Your task to perform on an android device: open chrome privacy settings Image 0: 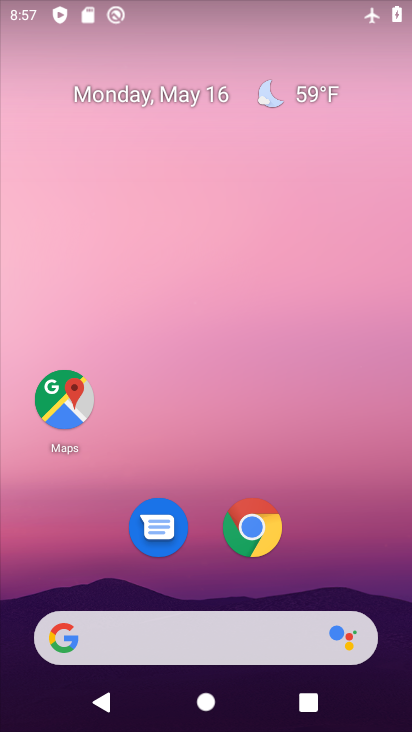
Step 0: click (260, 522)
Your task to perform on an android device: open chrome privacy settings Image 1: 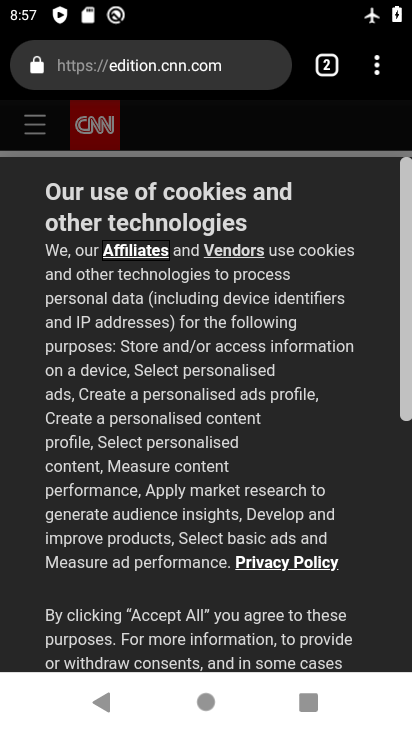
Step 1: click (378, 65)
Your task to perform on an android device: open chrome privacy settings Image 2: 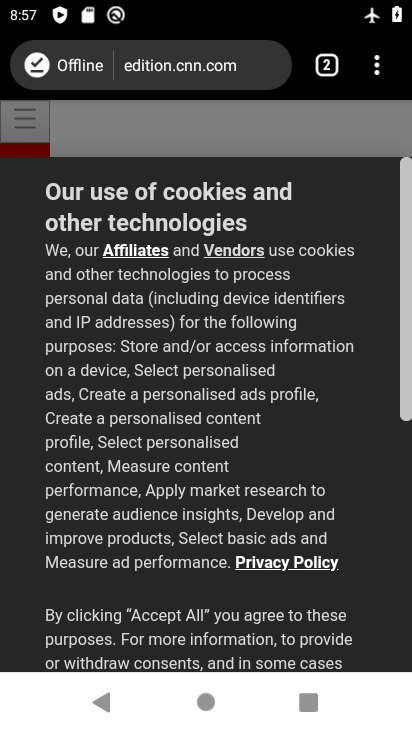
Step 2: click (378, 66)
Your task to perform on an android device: open chrome privacy settings Image 3: 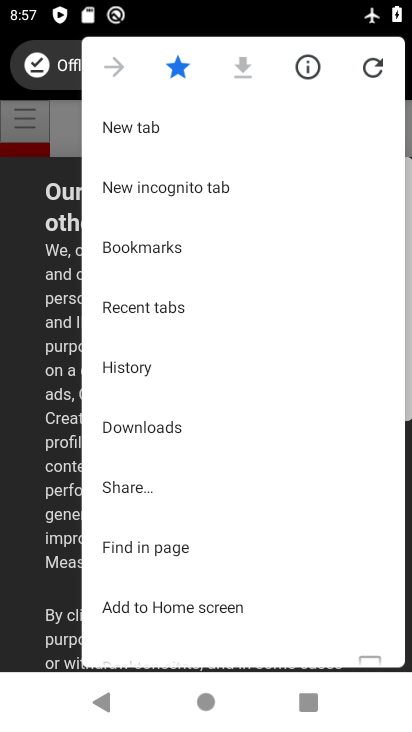
Step 3: drag from (327, 519) to (313, 307)
Your task to perform on an android device: open chrome privacy settings Image 4: 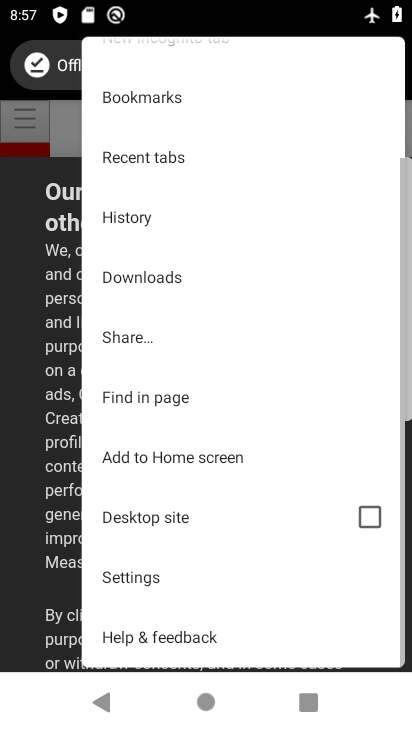
Step 4: click (137, 572)
Your task to perform on an android device: open chrome privacy settings Image 5: 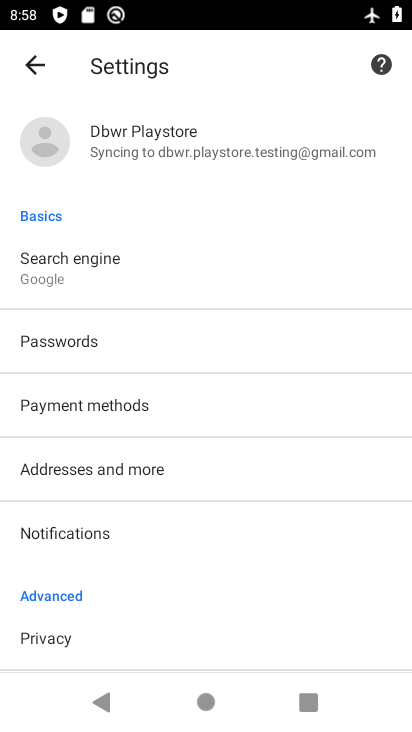
Step 5: drag from (233, 615) to (236, 315)
Your task to perform on an android device: open chrome privacy settings Image 6: 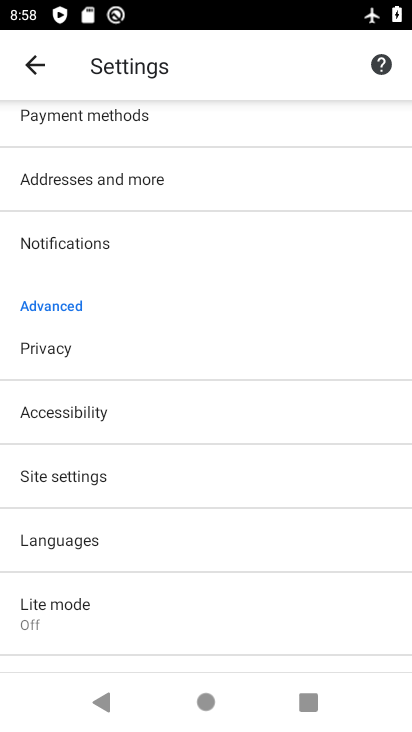
Step 6: click (40, 339)
Your task to perform on an android device: open chrome privacy settings Image 7: 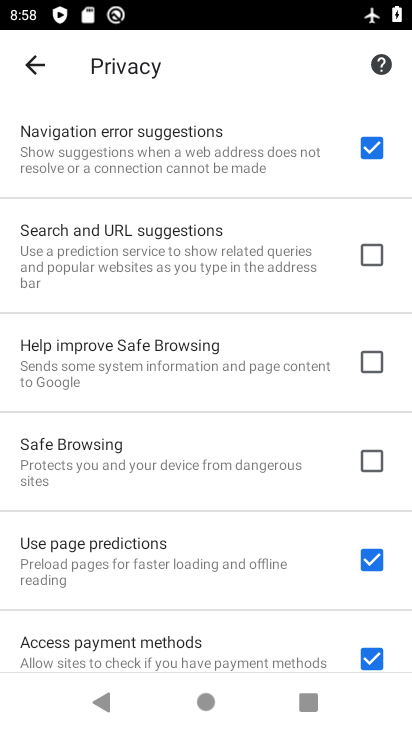
Step 7: task complete